Your task to perform on an android device: turn on data saver in the chrome app Image 0: 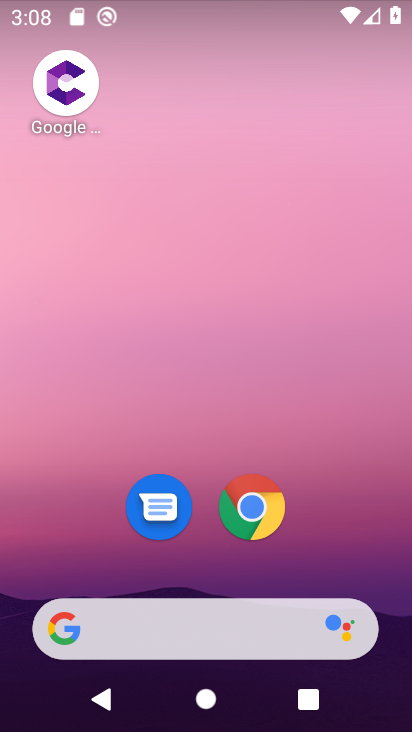
Step 0: click (271, 505)
Your task to perform on an android device: turn on data saver in the chrome app Image 1: 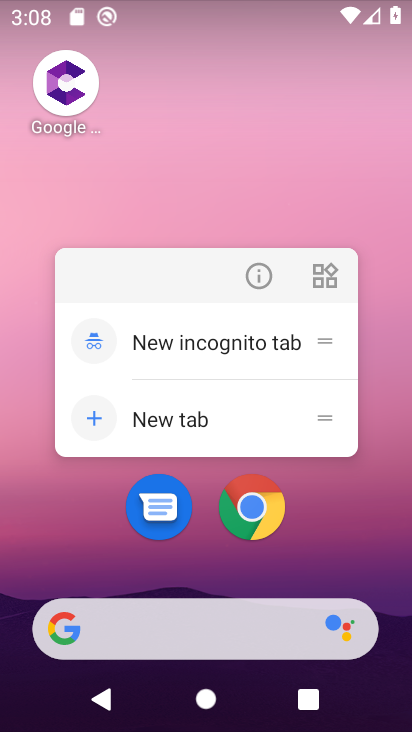
Step 1: click (251, 510)
Your task to perform on an android device: turn on data saver in the chrome app Image 2: 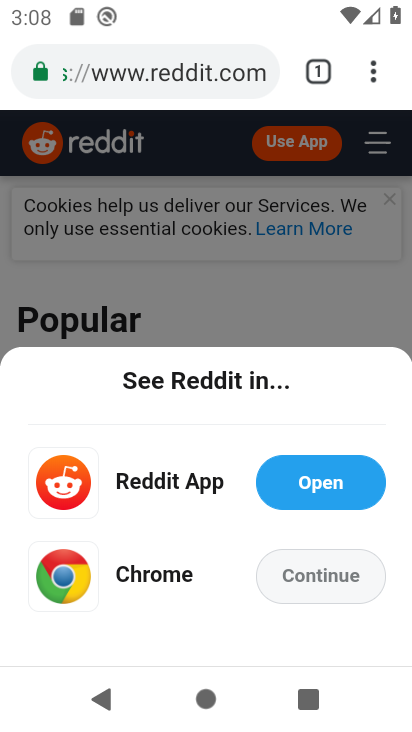
Step 2: click (371, 75)
Your task to perform on an android device: turn on data saver in the chrome app Image 3: 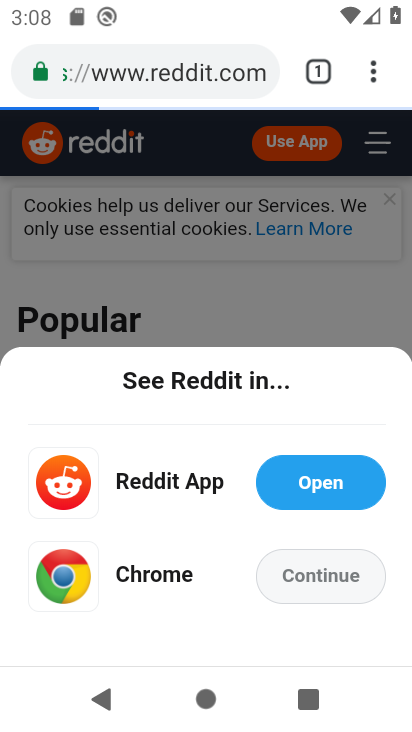
Step 3: click (371, 75)
Your task to perform on an android device: turn on data saver in the chrome app Image 4: 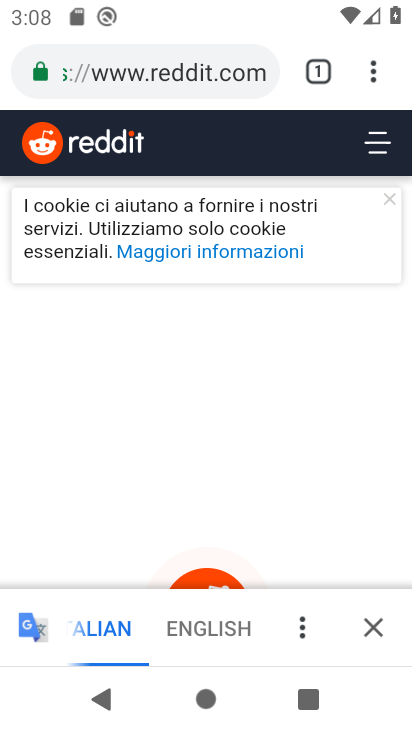
Step 4: click (371, 70)
Your task to perform on an android device: turn on data saver in the chrome app Image 5: 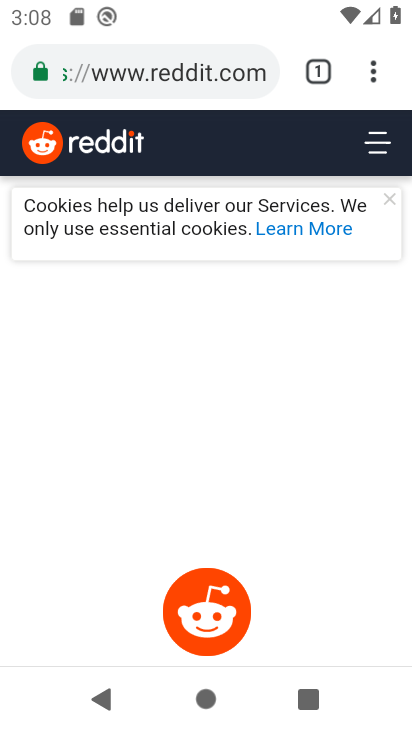
Step 5: click (376, 70)
Your task to perform on an android device: turn on data saver in the chrome app Image 6: 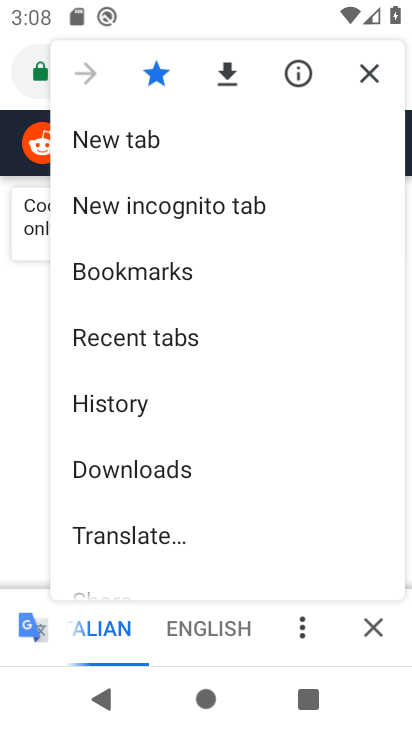
Step 6: drag from (332, 563) to (310, 235)
Your task to perform on an android device: turn on data saver in the chrome app Image 7: 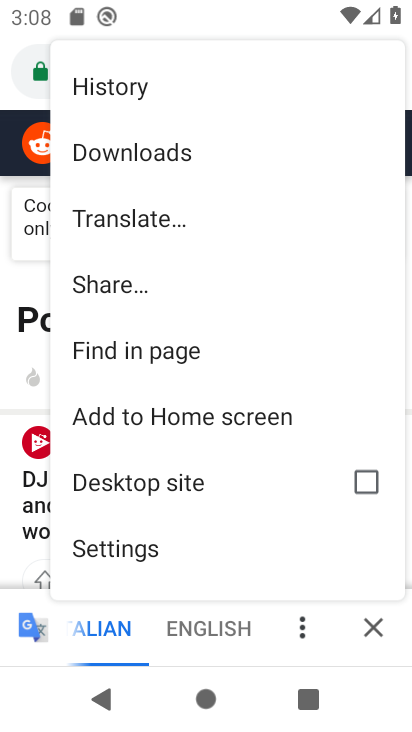
Step 7: click (216, 548)
Your task to perform on an android device: turn on data saver in the chrome app Image 8: 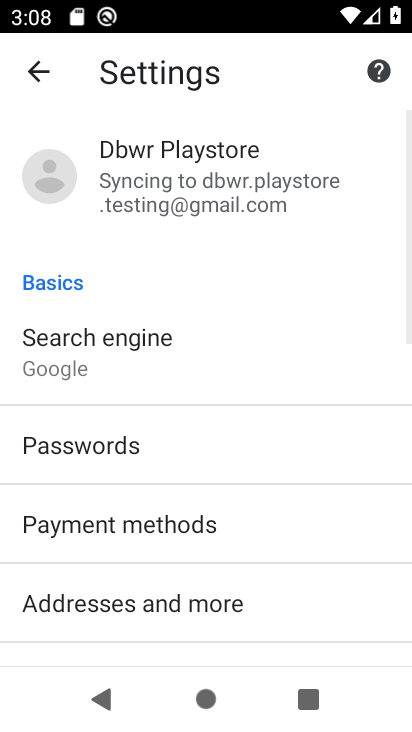
Step 8: drag from (248, 573) to (266, 266)
Your task to perform on an android device: turn on data saver in the chrome app Image 9: 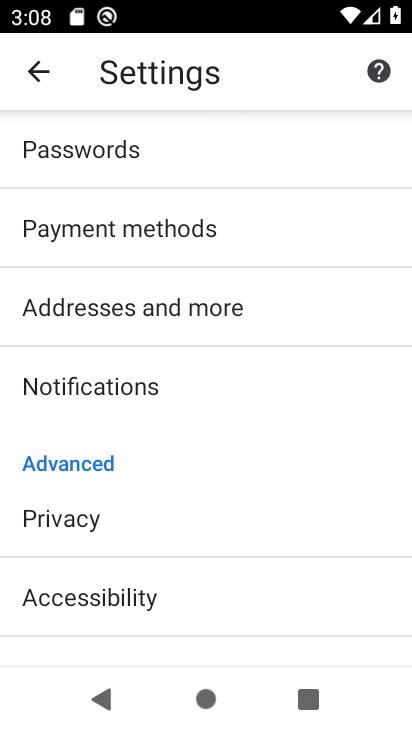
Step 9: drag from (231, 601) to (263, 366)
Your task to perform on an android device: turn on data saver in the chrome app Image 10: 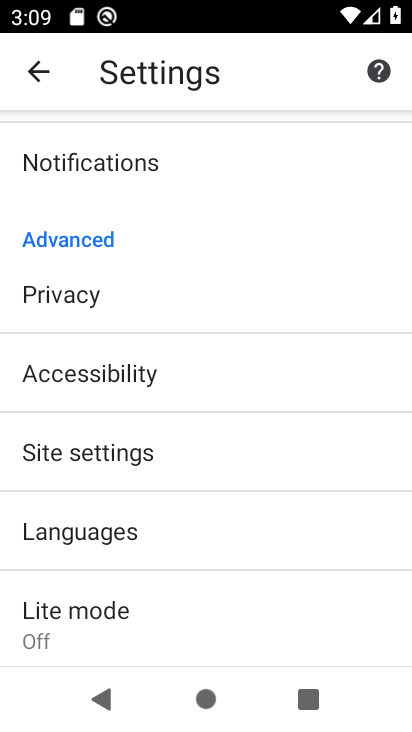
Step 10: click (161, 619)
Your task to perform on an android device: turn on data saver in the chrome app Image 11: 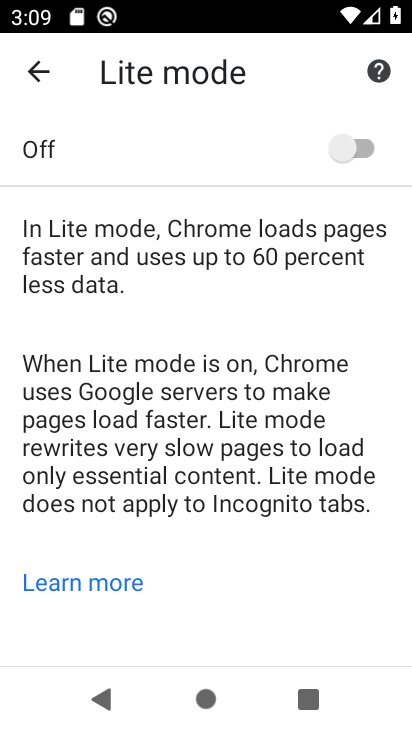
Step 11: click (351, 149)
Your task to perform on an android device: turn on data saver in the chrome app Image 12: 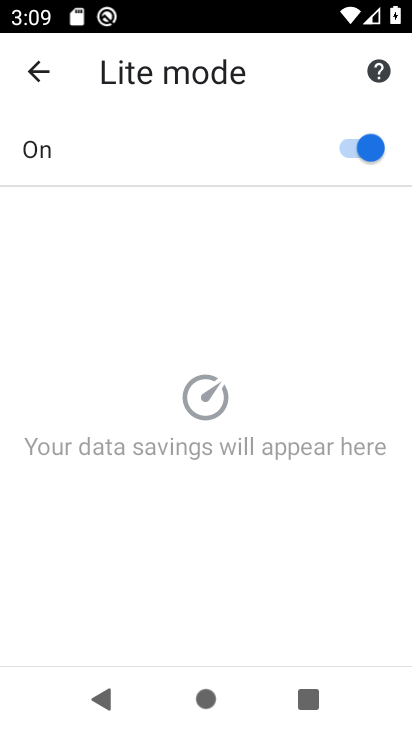
Step 12: task complete